Your task to perform on an android device: What's the weather today? Image 0: 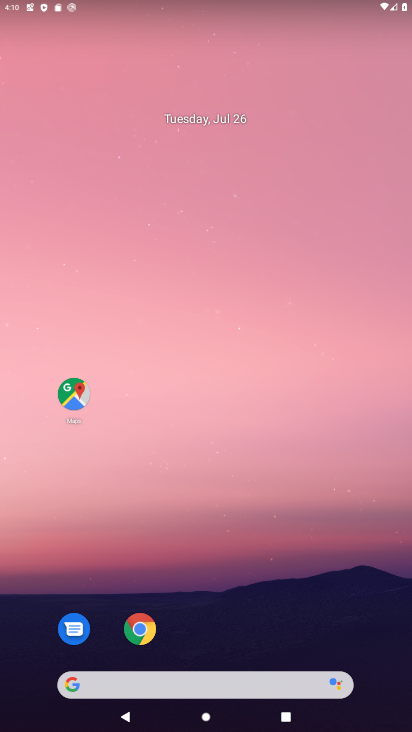
Step 0: click (200, 702)
Your task to perform on an android device: What's the weather today? Image 1: 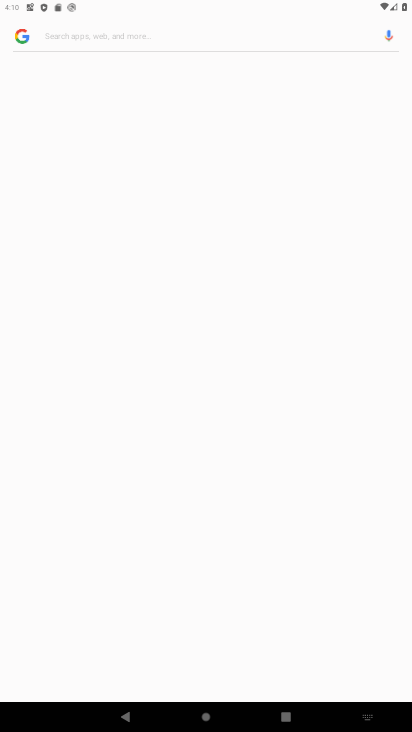
Step 1: click (201, 689)
Your task to perform on an android device: What's the weather today? Image 2: 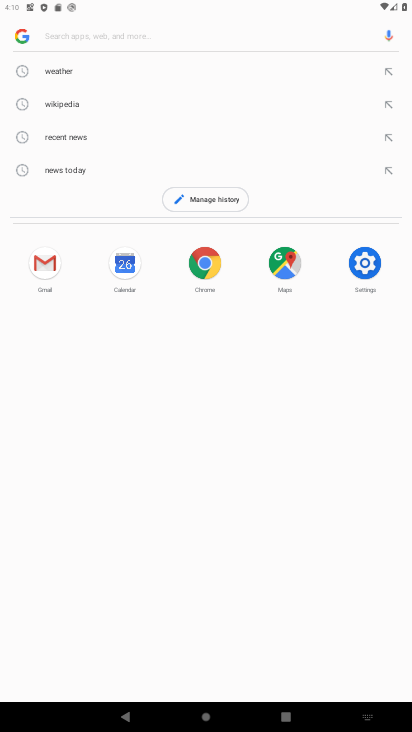
Step 2: click (87, 72)
Your task to perform on an android device: What's the weather today? Image 3: 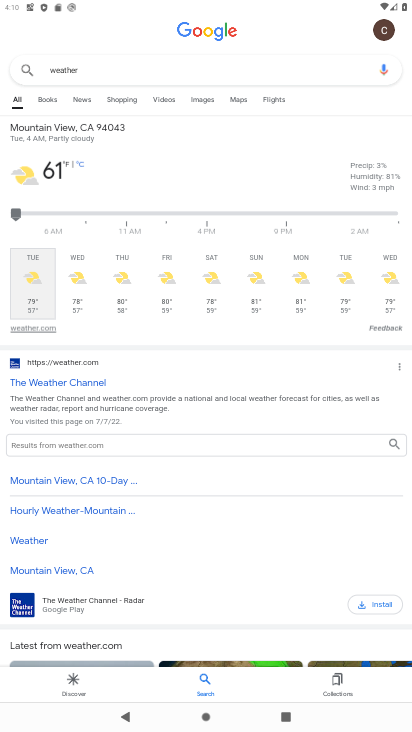
Step 3: task complete